Your task to perform on an android device: turn off notifications settings in the gmail app Image 0: 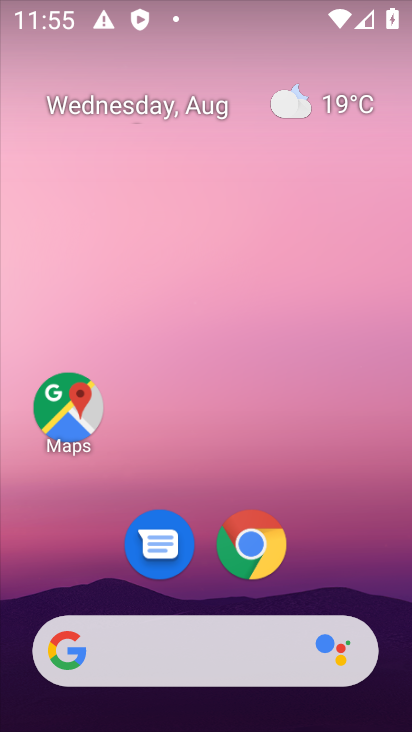
Step 0: drag from (13, 231) to (189, 281)
Your task to perform on an android device: turn off notifications settings in the gmail app Image 1: 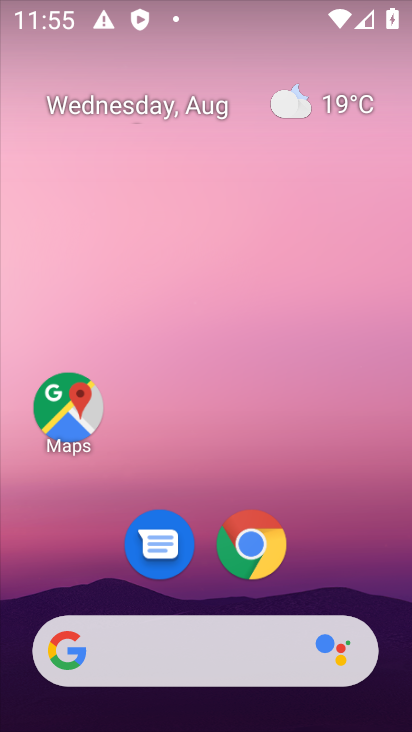
Step 1: drag from (395, 702) to (336, 45)
Your task to perform on an android device: turn off notifications settings in the gmail app Image 2: 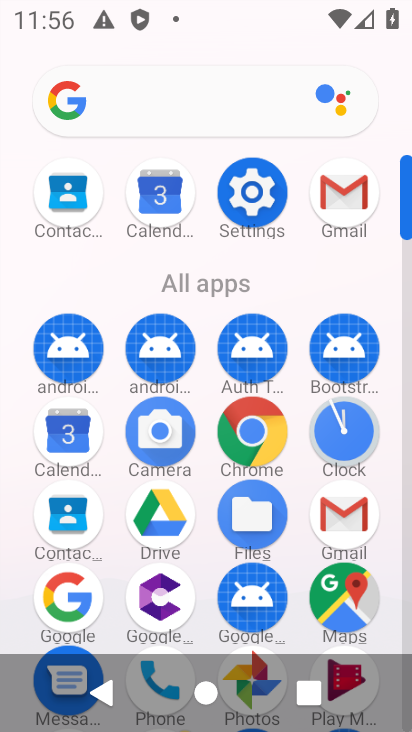
Step 2: click (349, 506)
Your task to perform on an android device: turn off notifications settings in the gmail app Image 3: 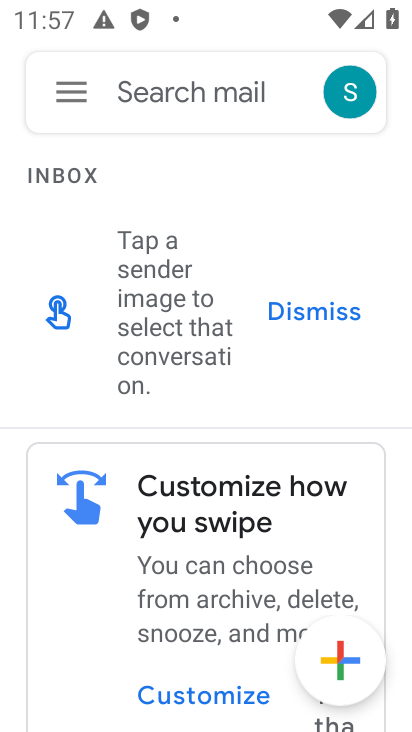
Step 3: click (76, 83)
Your task to perform on an android device: turn off notifications settings in the gmail app Image 4: 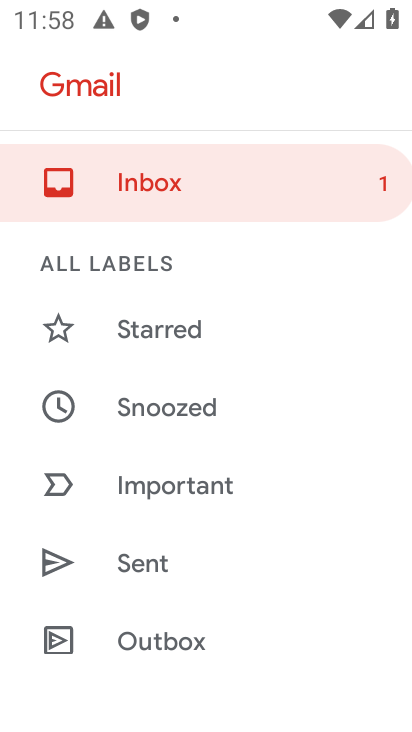
Step 4: drag from (313, 645) to (288, 322)
Your task to perform on an android device: turn off notifications settings in the gmail app Image 5: 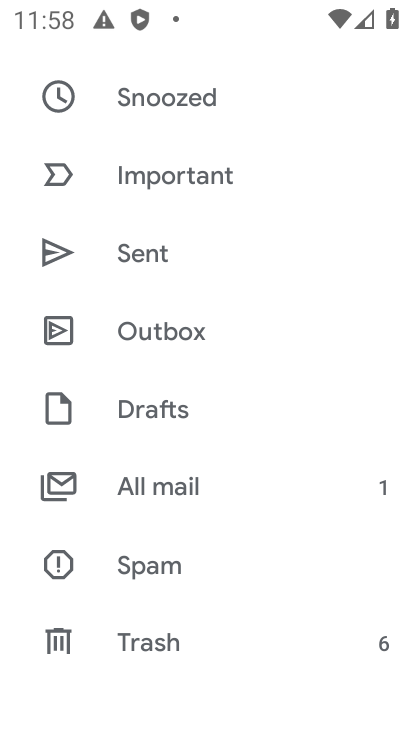
Step 5: drag from (317, 593) to (311, 292)
Your task to perform on an android device: turn off notifications settings in the gmail app Image 6: 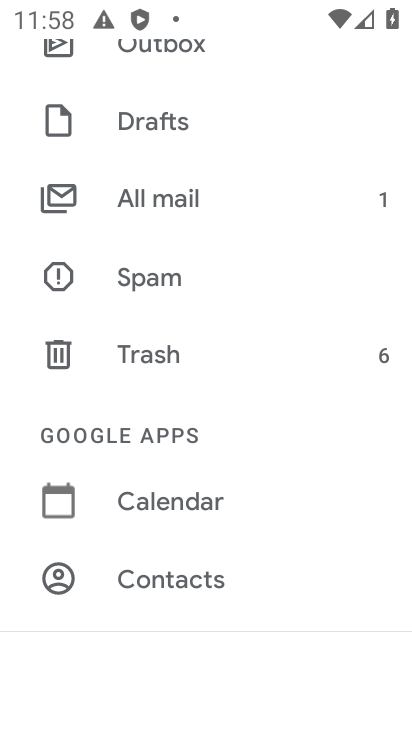
Step 6: drag from (317, 566) to (294, 216)
Your task to perform on an android device: turn off notifications settings in the gmail app Image 7: 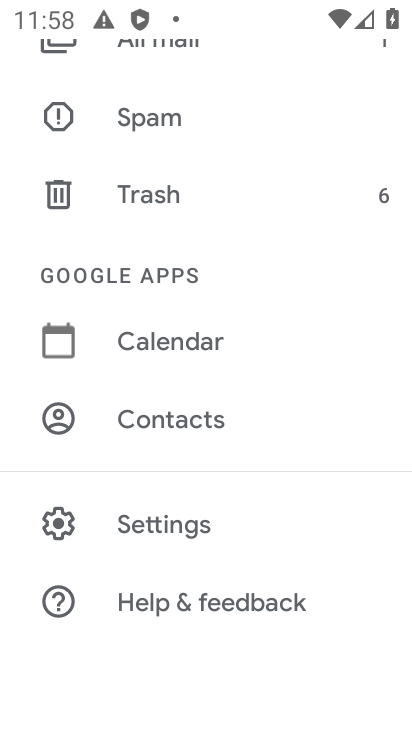
Step 7: click (178, 517)
Your task to perform on an android device: turn off notifications settings in the gmail app Image 8: 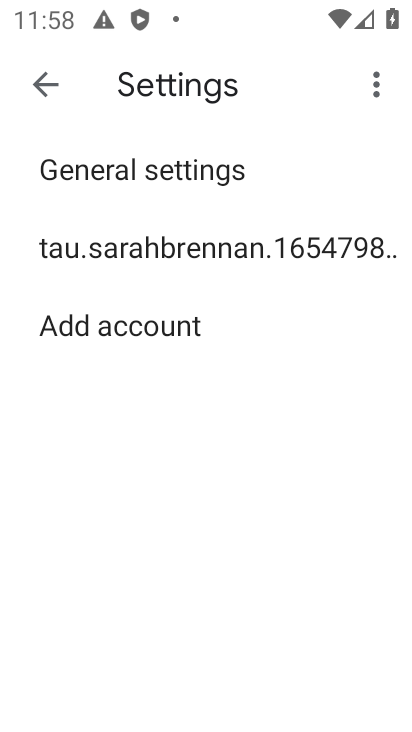
Step 8: click (100, 255)
Your task to perform on an android device: turn off notifications settings in the gmail app Image 9: 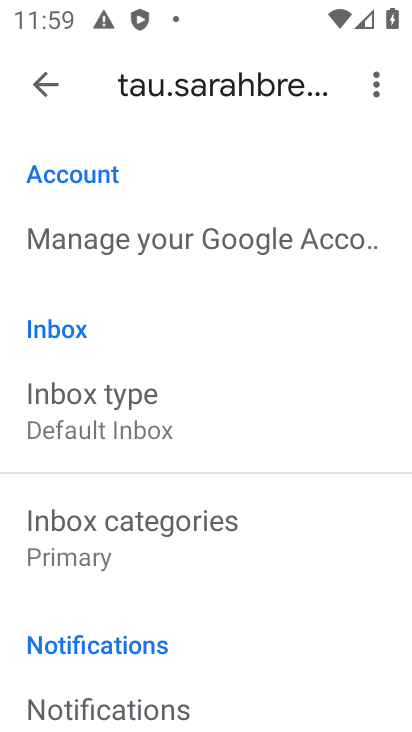
Step 9: drag from (299, 690) to (263, 419)
Your task to perform on an android device: turn off notifications settings in the gmail app Image 10: 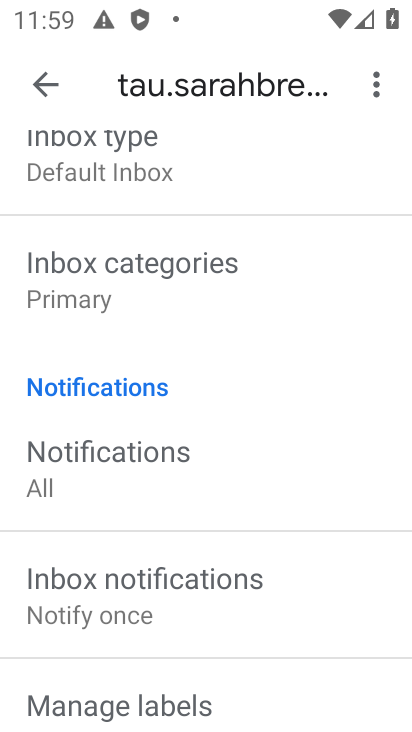
Step 10: click (98, 451)
Your task to perform on an android device: turn off notifications settings in the gmail app Image 11: 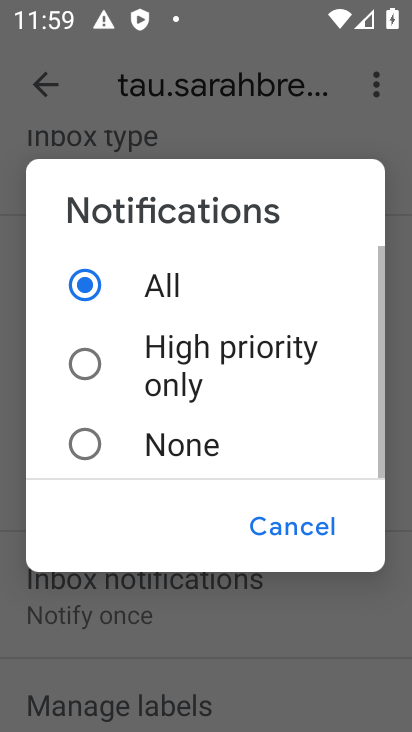
Step 11: click (89, 438)
Your task to perform on an android device: turn off notifications settings in the gmail app Image 12: 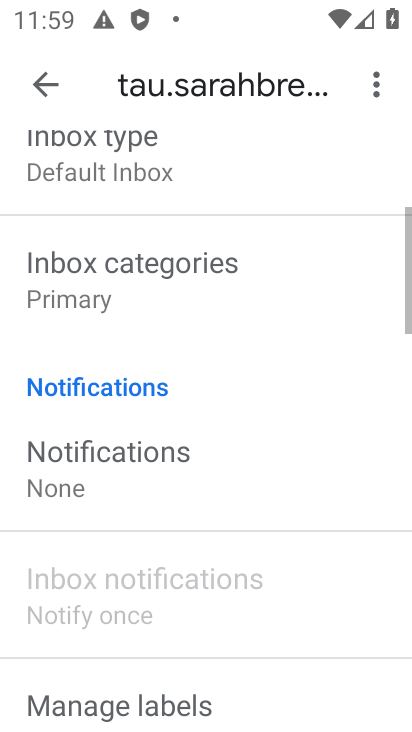
Step 12: task complete